Your task to perform on an android device: change keyboard looks Image 0: 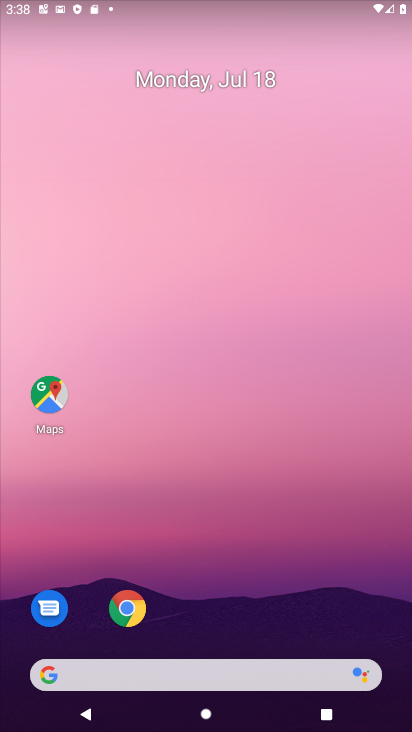
Step 0: drag from (197, 602) to (295, 88)
Your task to perform on an android device: change keyboard looks Image 1: 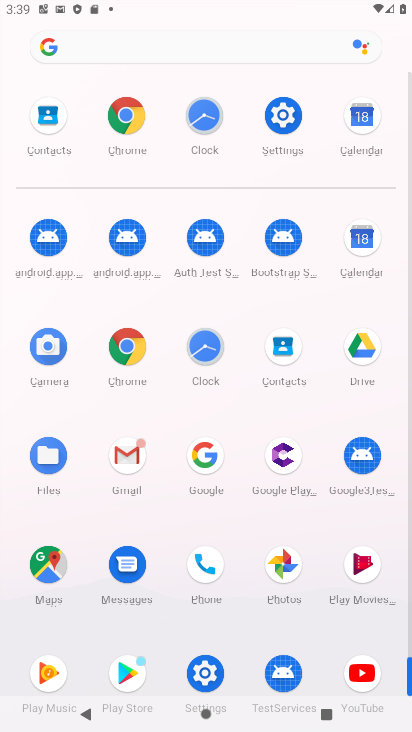
Step 1: click (285, 119)
Your task to perform on an android device: change keyboard looks Image 2: 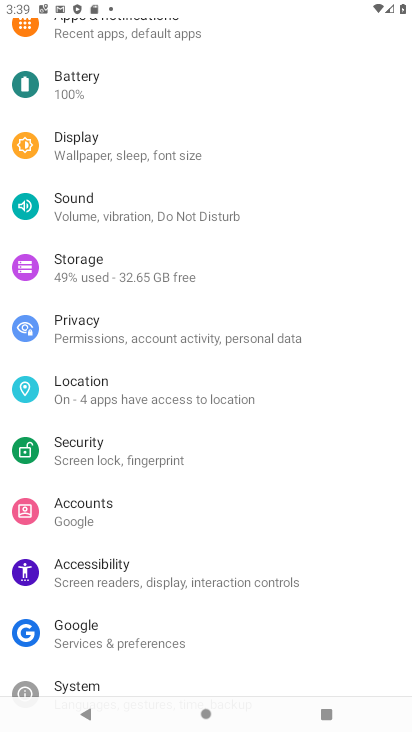
Step 2: drag from (140, 507) to (169, 238)
Your task to perform on an android device: change keyboard looks Image 3: 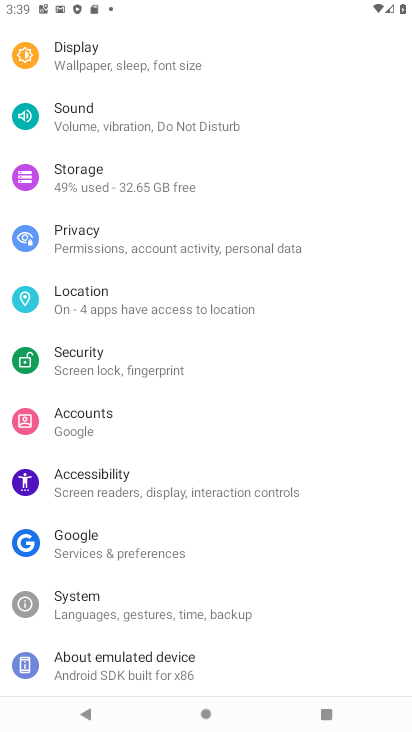
Step 3: click (179, 617)
Your task to perform on an android device: change keyboard looks Image 4: 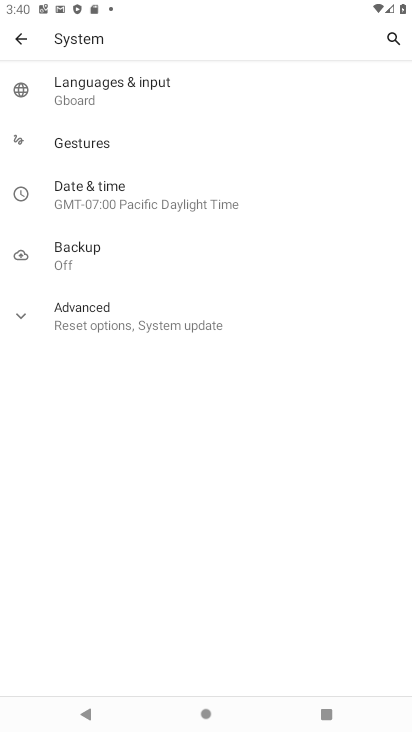
Step 4: click (146, 93)
Your task to perform on an android device: change keyboard looks Image 5: 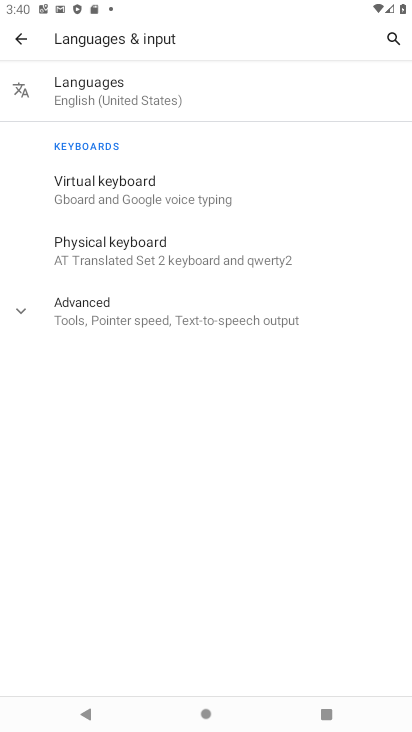
Step 5: click (141, 90)
Your task to perform on an android device: change keyboard looks Image 6: 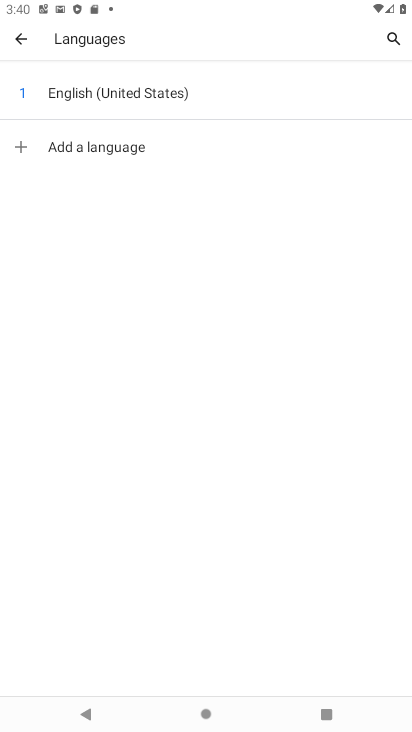
Step 6: click (17, 38)
Your task to perform on an android device: change keyboard looks Image 7: 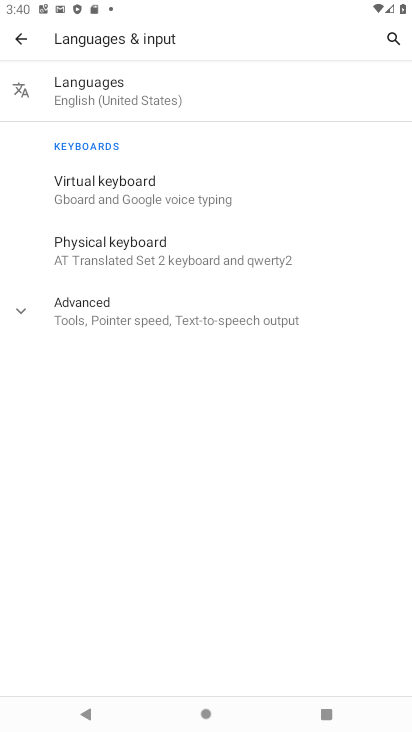
Step 7: click (166, 204)
Your task to perform on an android device: change keyboard looks Image 8: 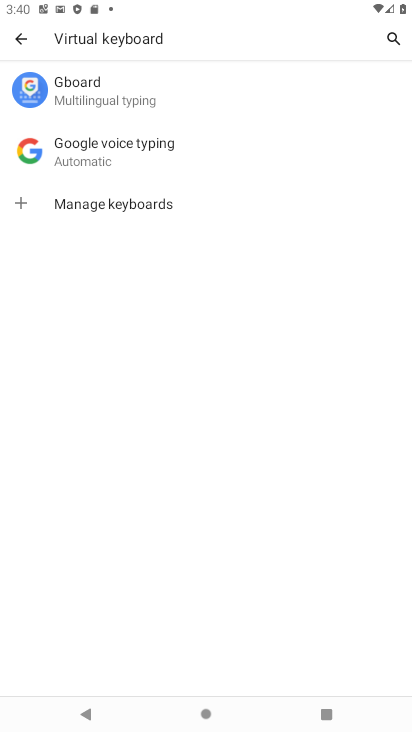
Step 8: click (145, 88)
Your task to perform on an android device: change keyboard looks Image 9: 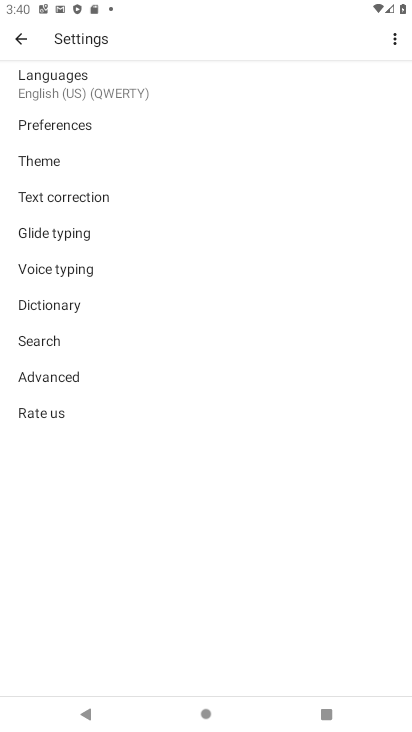
Step 9: click (45, 164)
Your task to perform on an android device: change keyboard looks Image 10: 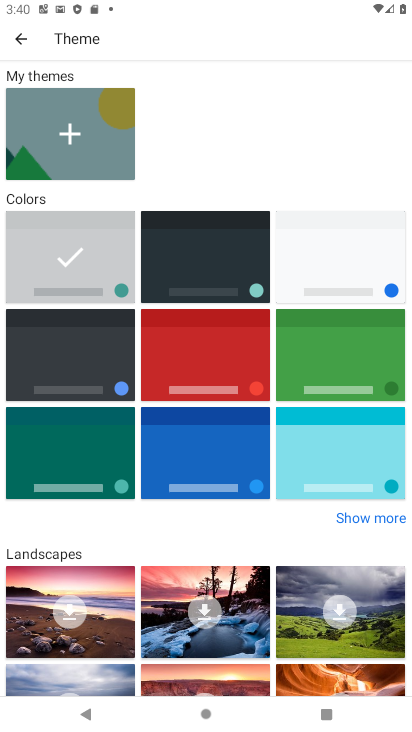
Step 10: click (208, 269)
Your task to perform on an android device: change keyboard looks Image 11: 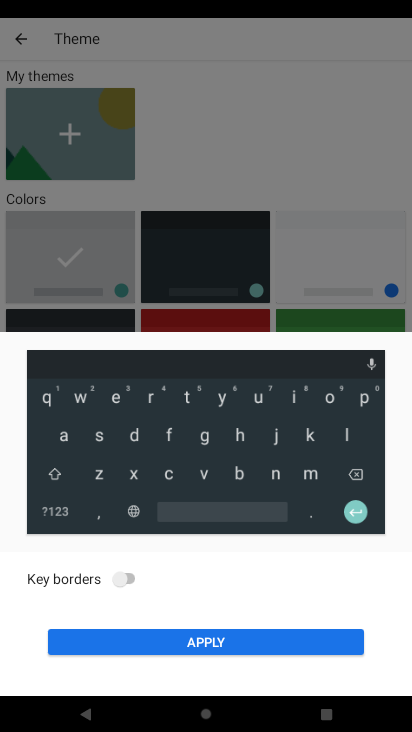
Step 11: click (232, 648)
Your task to perform on an android device: change keyboard looks Image 12: 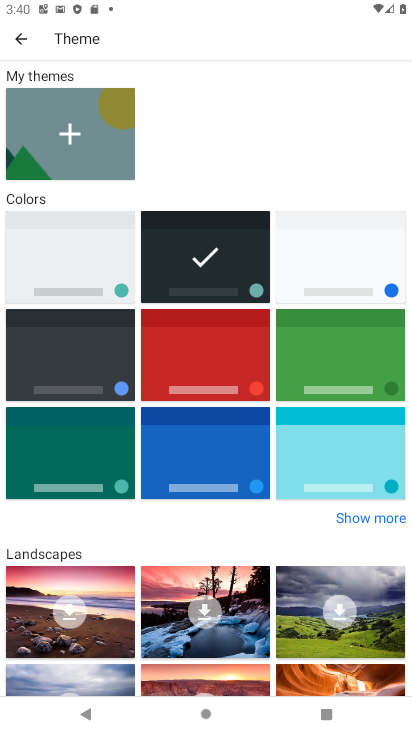
Step 12: task complete